Your task to perform on an android device: choose inbox layout in the gmail app Image 0: 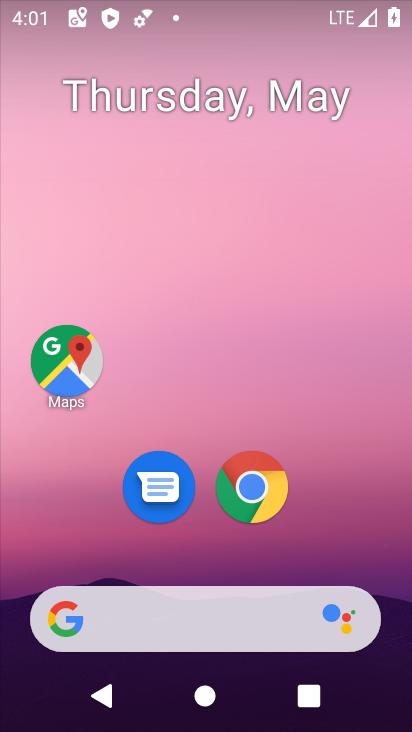
Step 0: drag from (251, 587) to (309, 147)
Your task to perform on an android device: choose inbox layout in the gmail app Image 1: 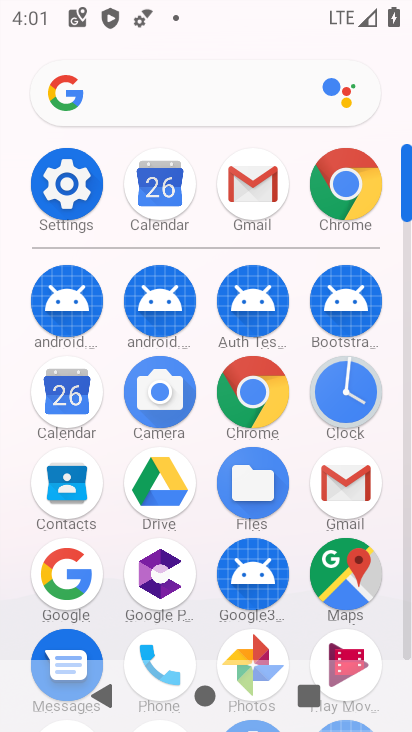
Step 1: click (350, 479)
Your task to perform on an android device: choose inbox layout in the gmail app Image 2: 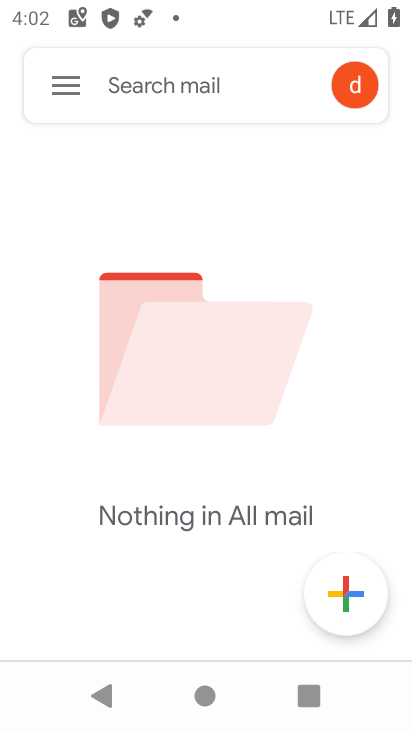
Step 2: click (69, 82)
Your task to perform on an android device: choose inbox layout in the gmail app Image 3: 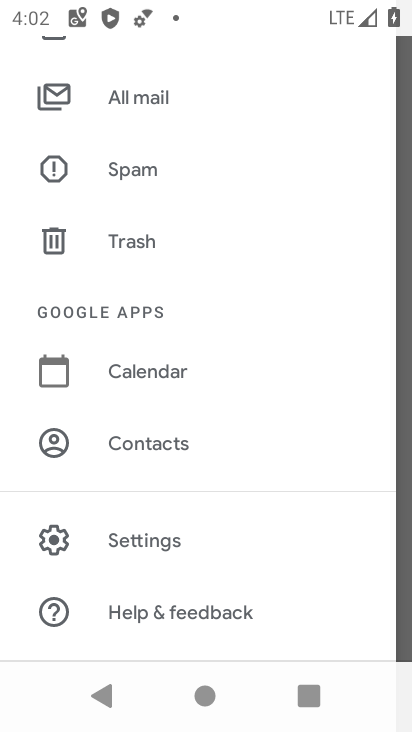
Step 3: click (156, 548)
Your task to perform on an android device: choose inbox layout in the gmail app Image 4: 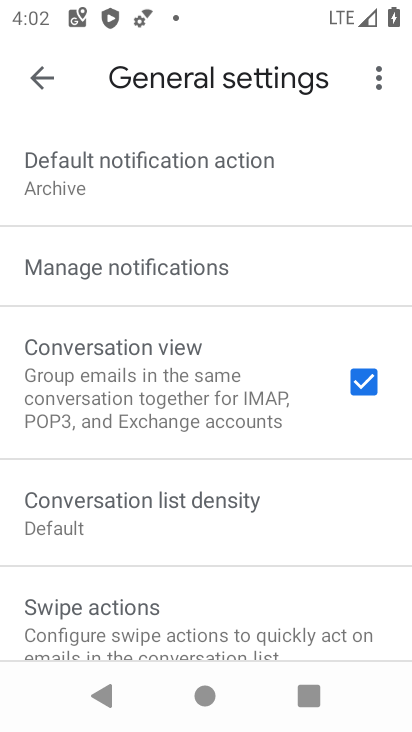
Step 4: task complete